Your task to perform on an android device: find which apps use the phone's location Image 0: 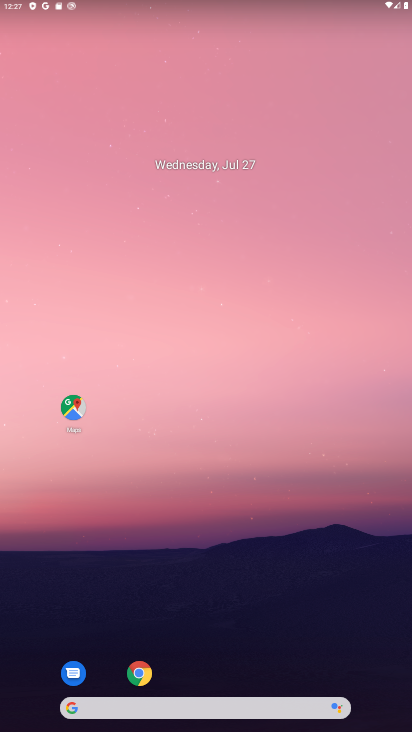
Step 0: drag from (239, 667) to (252, 44)
Your task to perform on an android device: find which apps use the phone's location Image 1: 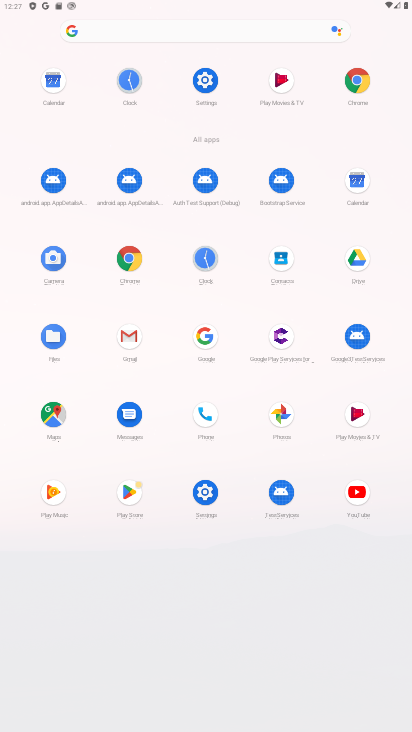
Step 1: click (199, 85)
Your task to perform on an android device: find which apps use the phone's location Image 2: 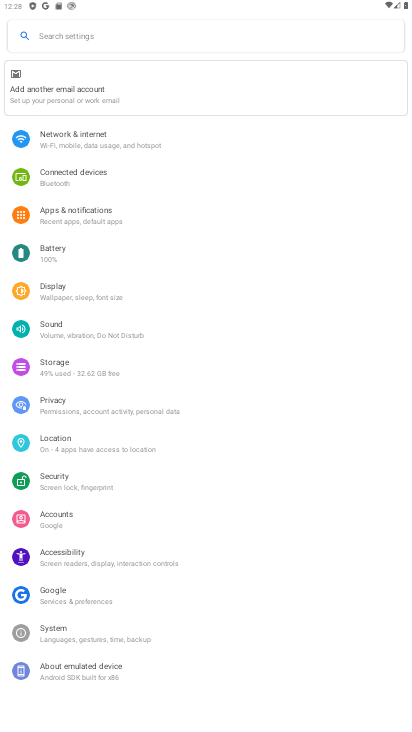
Step 2: click (51, 445)
Your task to perform on an android device: find which apps use the phone's location Image 3: 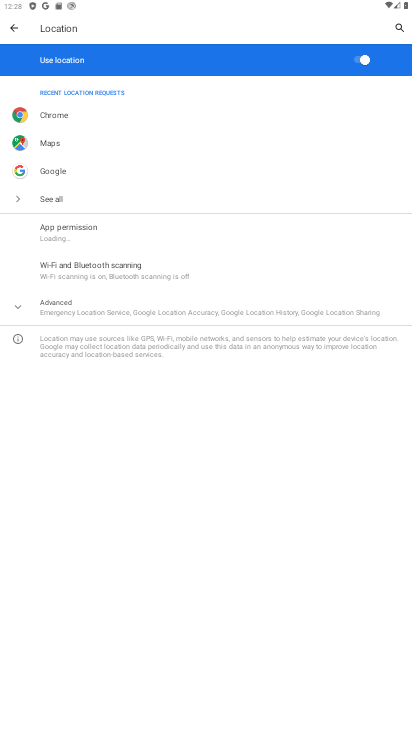
Step 3: click (43, 233)
Your task to perform on an android device: find which apps use the phone's location Image 4: 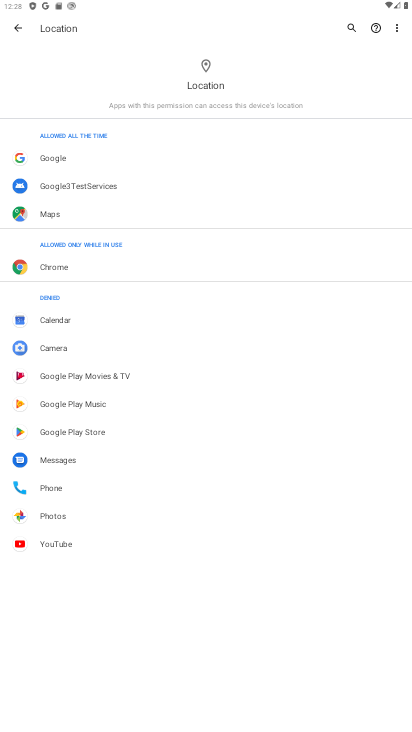
Step 4: task complete